Your task to perform on an android device: Open settings on Google Maps Image 0: 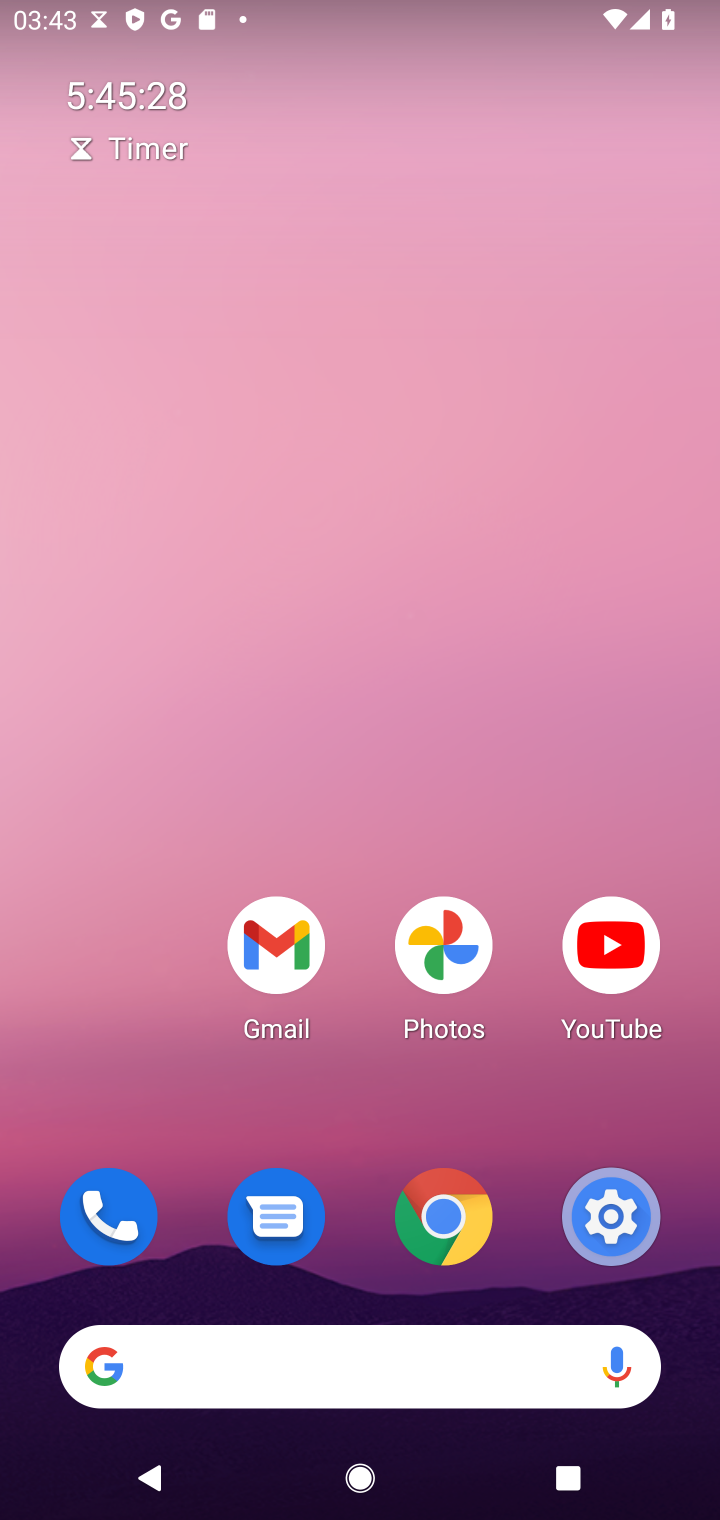
Step 0: drag from (349, 1126) to (317, 416)
Your task to perform on an android device: Open settings on Google Maps Image 1: 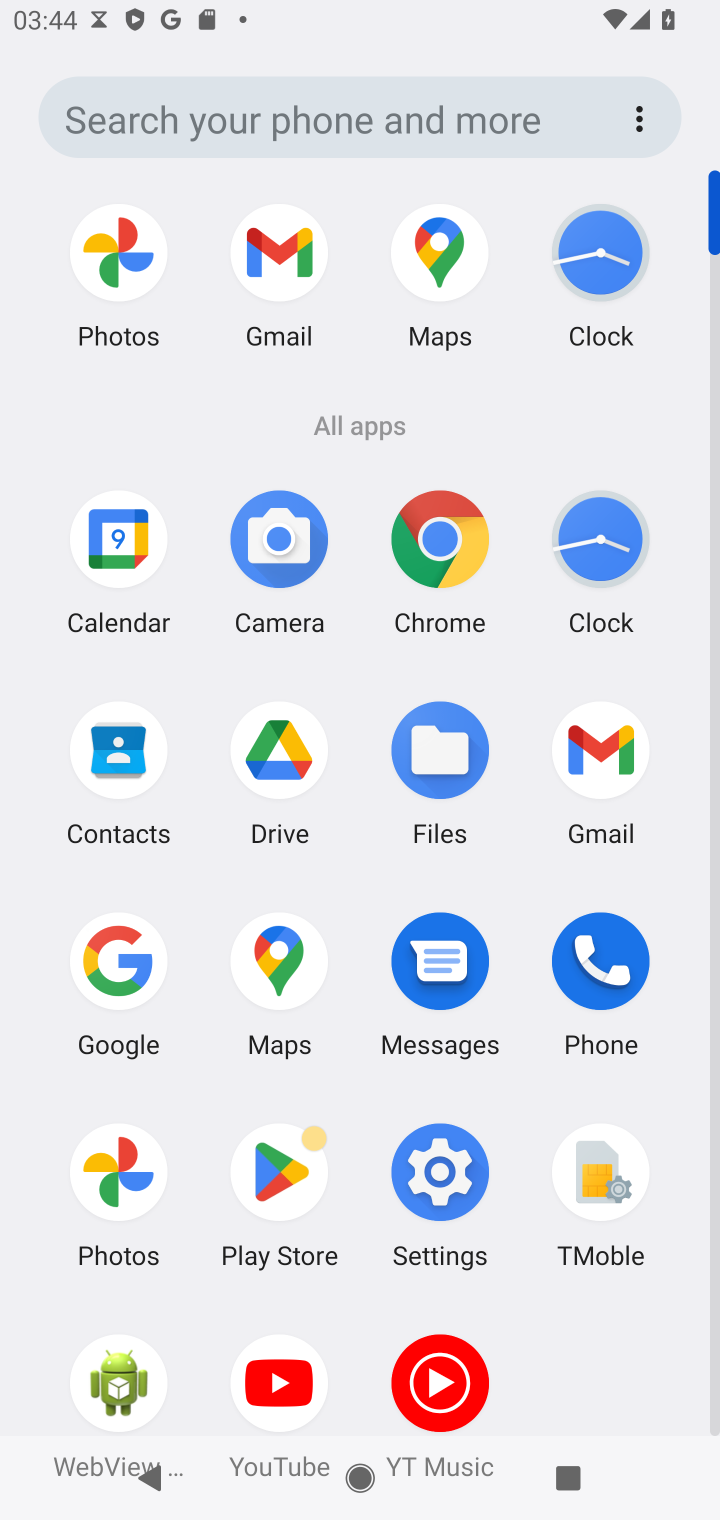
Step 1: click (277, 951)
Your task to perform on an android device: Open settings on Google Maps Image 2: 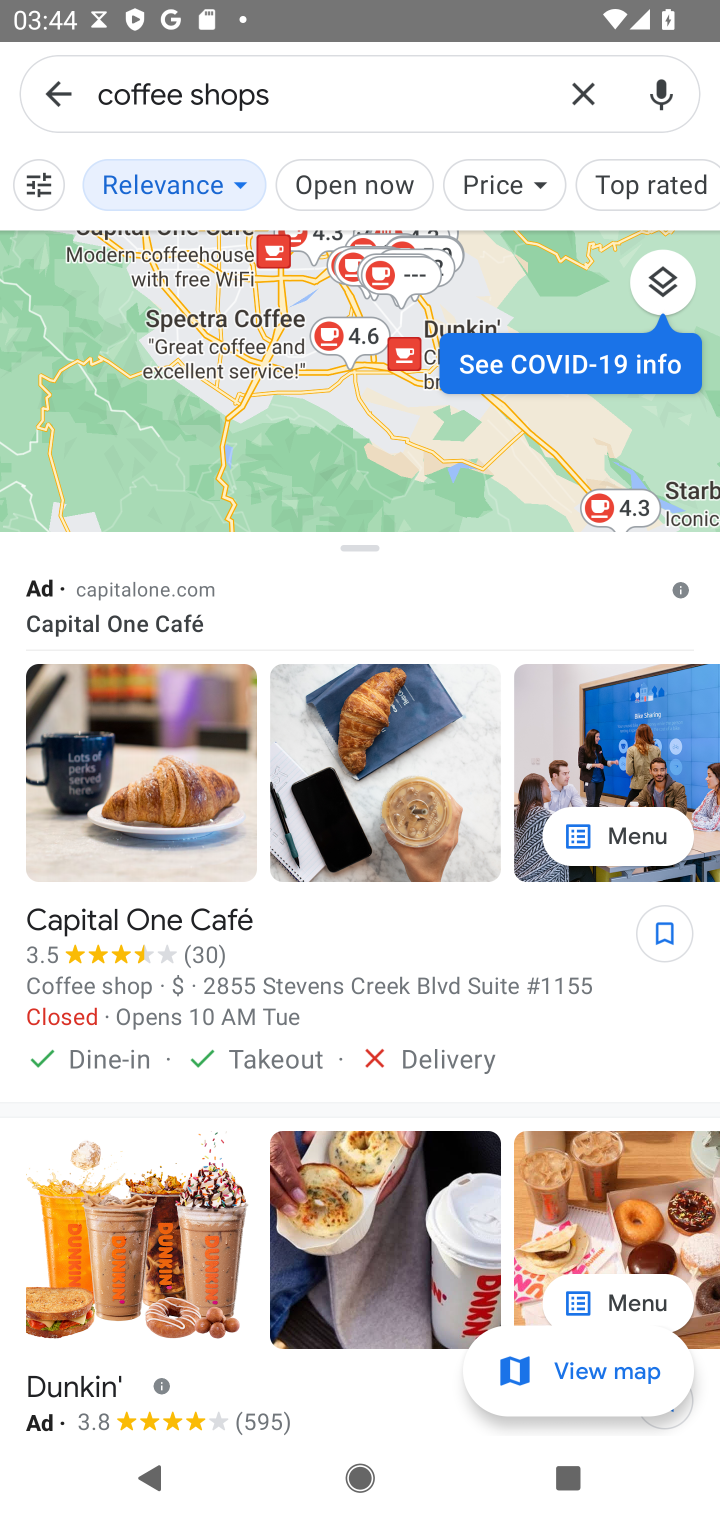
Step 2: click (41, 99)
Your task to perform on an android device: Open settings on Google Maps Image 3: 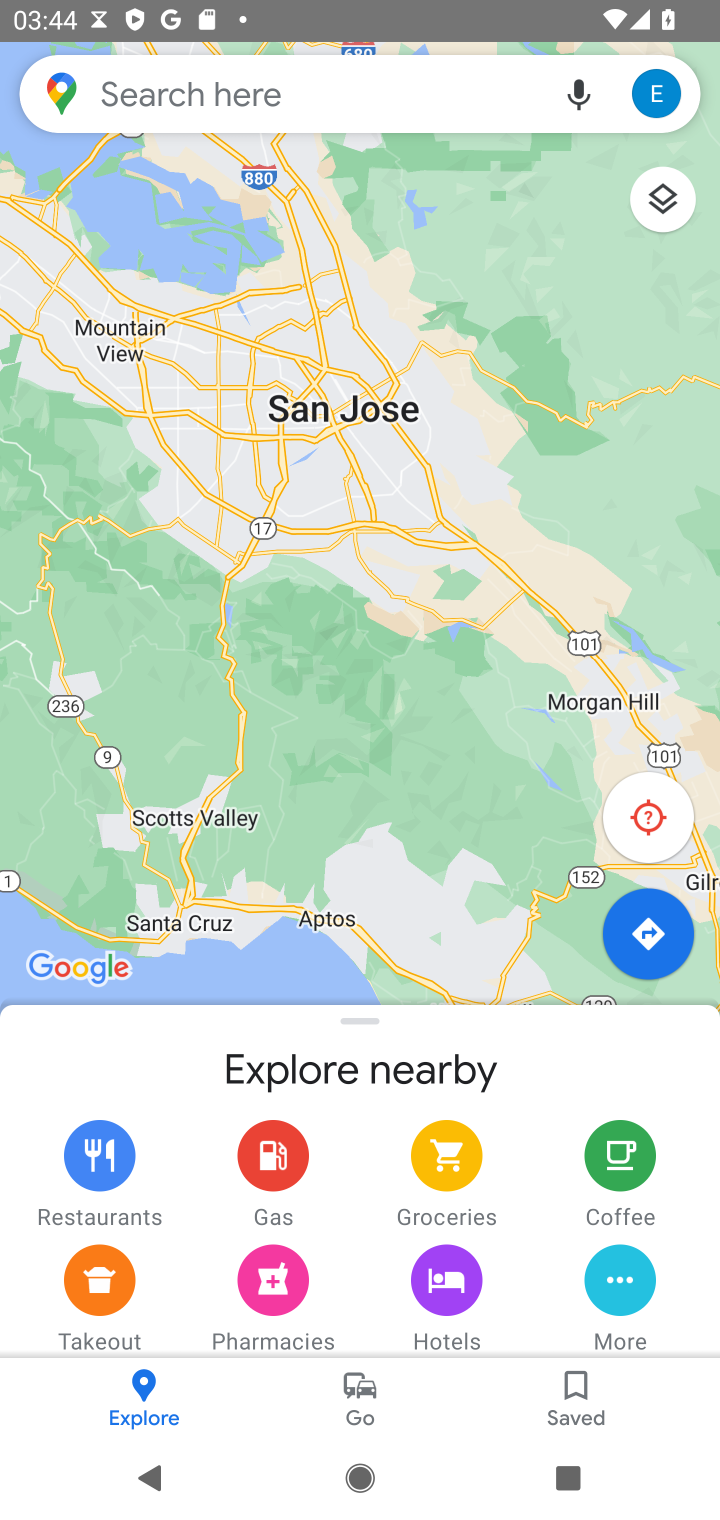
Step 3: click (661, 95)
Your task to perform on an android device: Open settings on Google Maps Image 4: 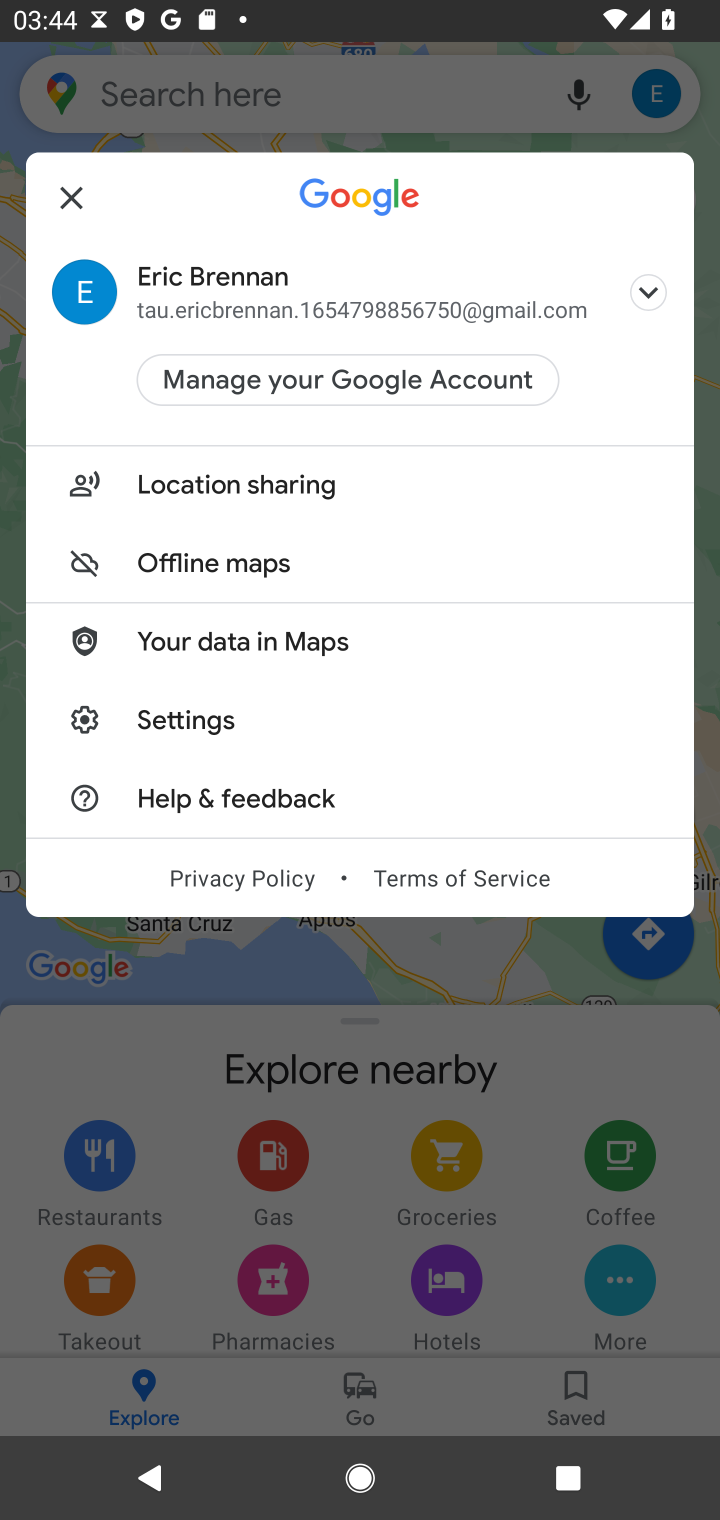
Step 4: click (292, 739)
Your task to perform on an android device: Open settings on Google Maps Image 5: 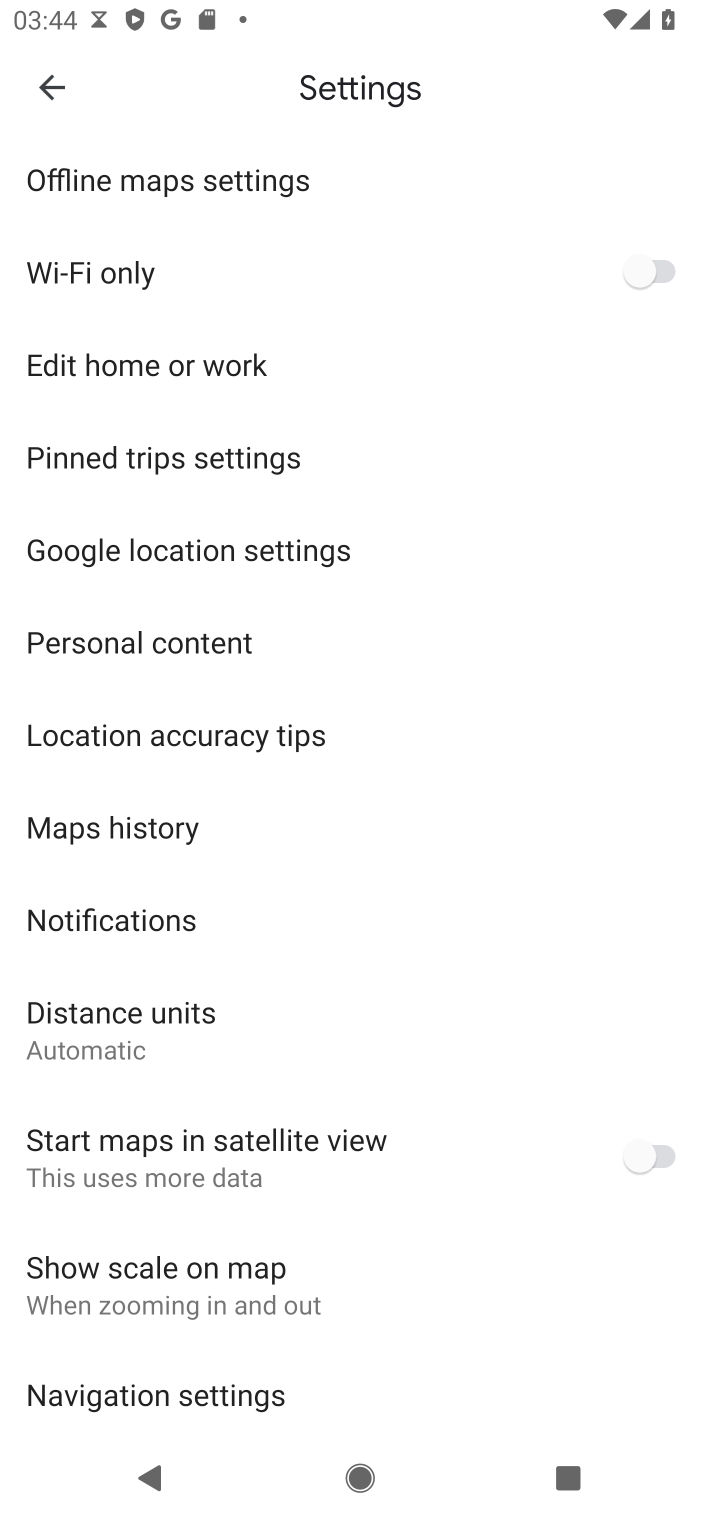
Step 5: task complete